Your task to perform on an android device: check out phone information Image 0: 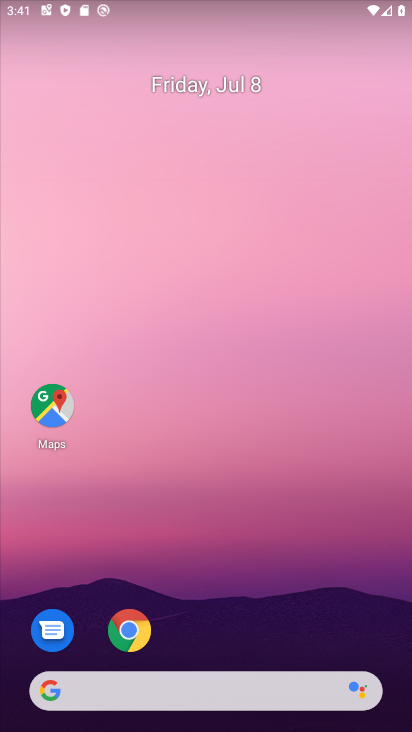
Step 0: drag from (288, 593) to (308, 155)
Your task to perform on an android device: check out phone information Image 1: 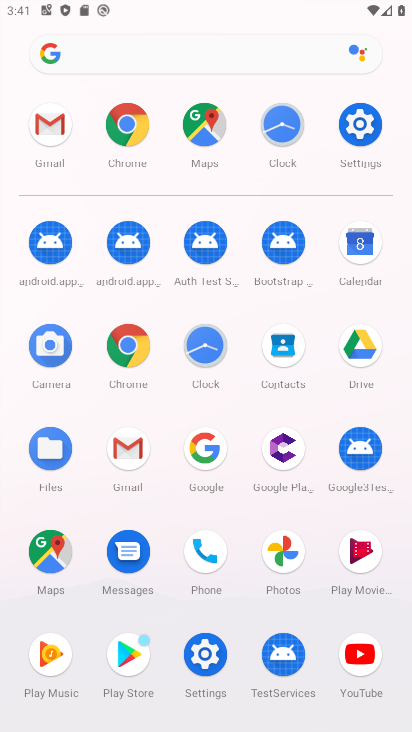
Step 1: click (379, 135)
Your task to perform on an android device: check out phone information Image 2: 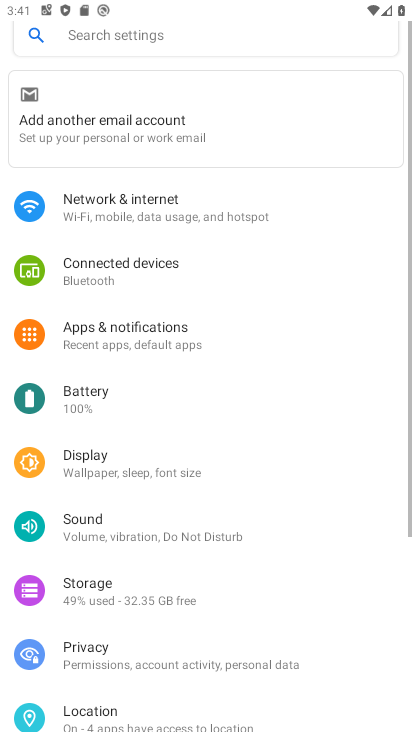
Step 2: drag from (254, 538) to (255, 338)
Your task to perform on an android device: check out phone information Image 3: 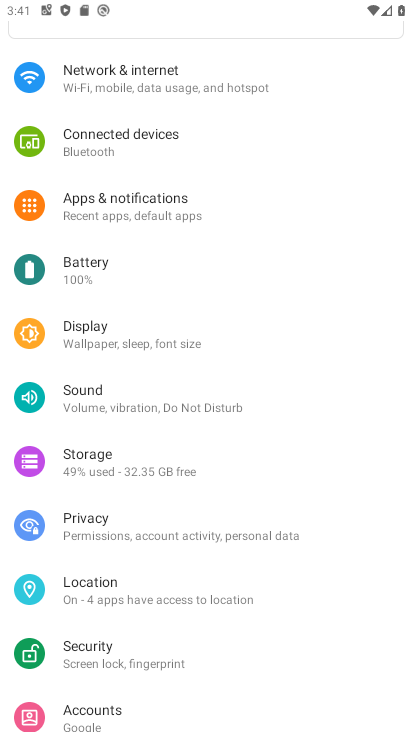
Step 3: drag from (219, 632) to (253, 264)
Your task to perform on an android device: check out phone information Image 4: 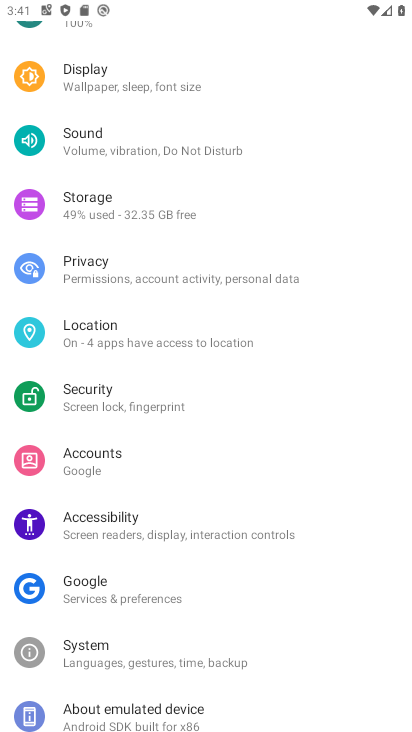
Step 4: drag from (238, 703) to (262, 492)
Your task to perform on an android device: check out phone information Image 5: 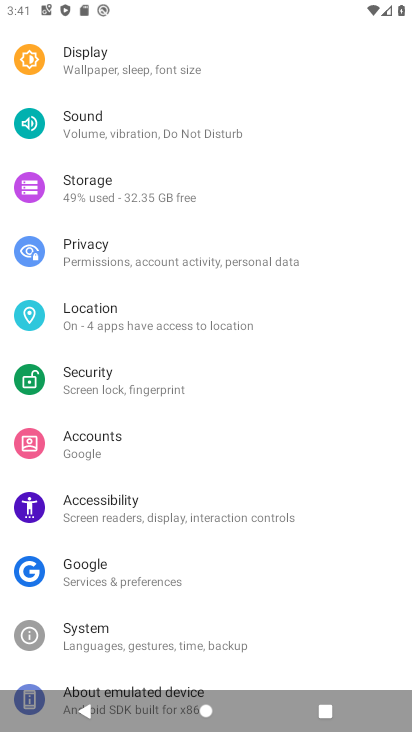
Step 5: click (214, 670)
Your task to perform on an android device: check out phone information Image 6: 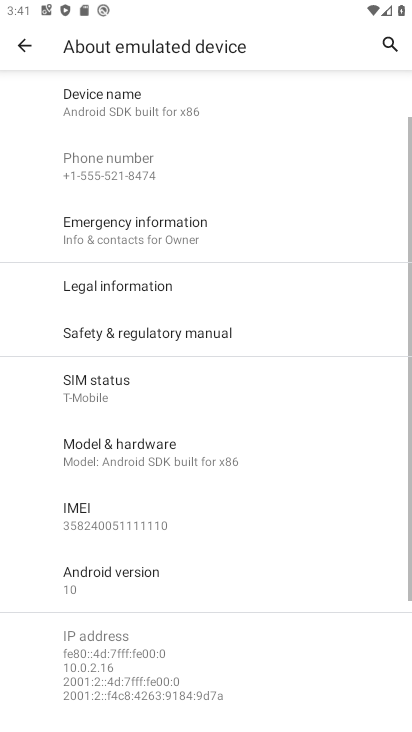
Step 6: task complete